Your task to perform on an android device: install app "Etsy: Buy & Sell Unique Items" Image 0: 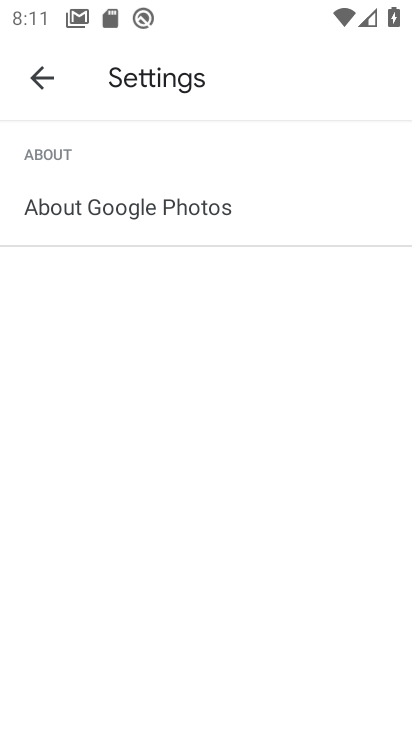
Step 0: press home button
Your task to perform on an android device: install app "Etsy: Buy & Sell Unique Items" Image 1: 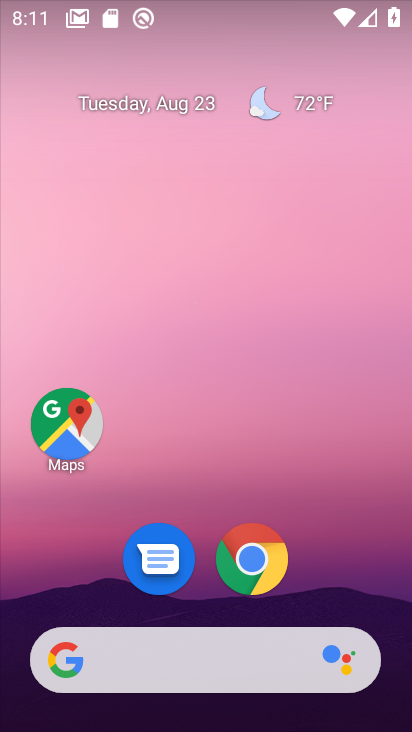
Step 1: drag from (200, 497) to (217, 165)
Your task to perform on an android device: install app "Etsy: Buy & Sell Unique Items" Image 2: 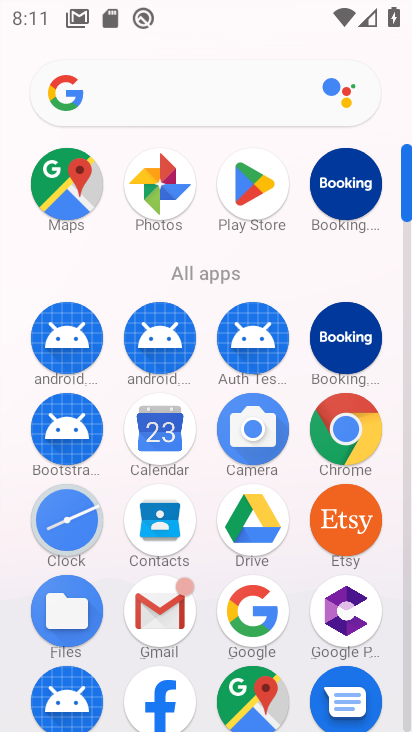
Step 2: click (253, 180)
Your task to perform on an android device: install app "Etsy: Buy & Sell Unique Items" Image 3: 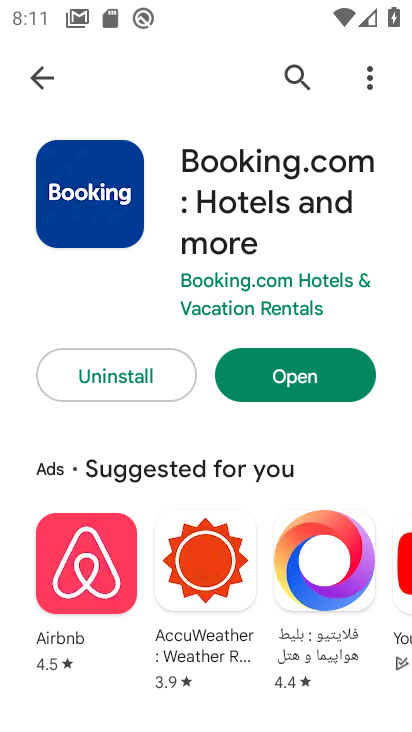
Step 3: click (282, 60)
Your task to perform on an android device: install app "Etsy: Buy & Sell Unique Items" Image 4: 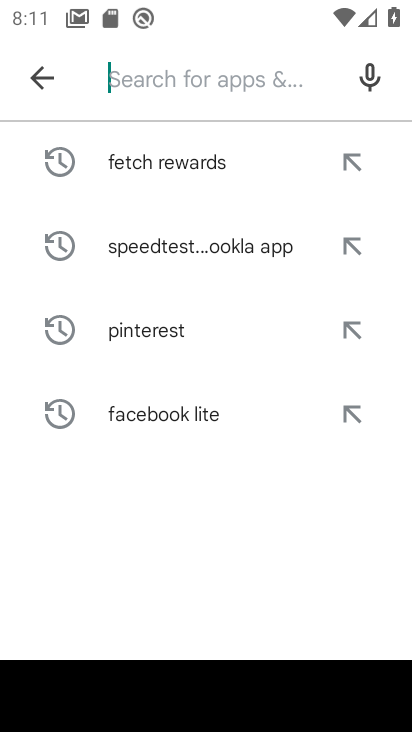
Step 4: type "Etsy: Buy & Sell Unique Item"
Your task to perform on an android device: install app "Etsy: Buy & Sell Unique Items" Image 5: 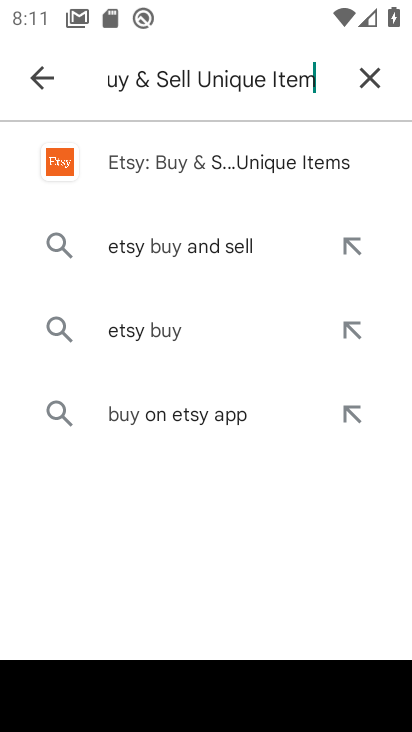
Step 5: type ""
Your task to perform on an android device: install app "Etsy: Buy & Sell Unique Items" Image 6: 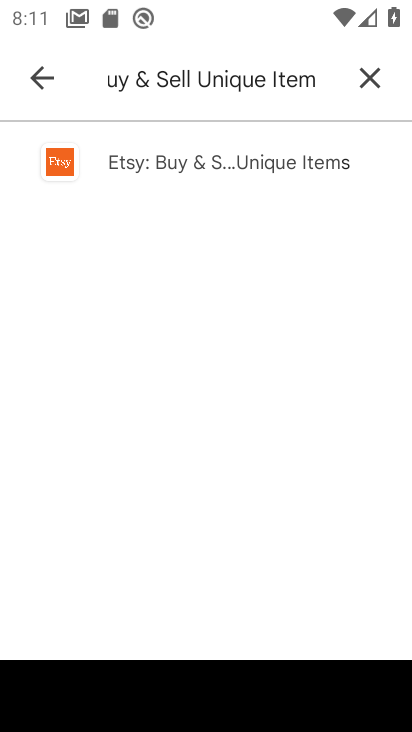
Step 6: click (121, 164)
Your task to perform on an android device: install app "Etsy: Buy & Sell Unique Items" Image 7: 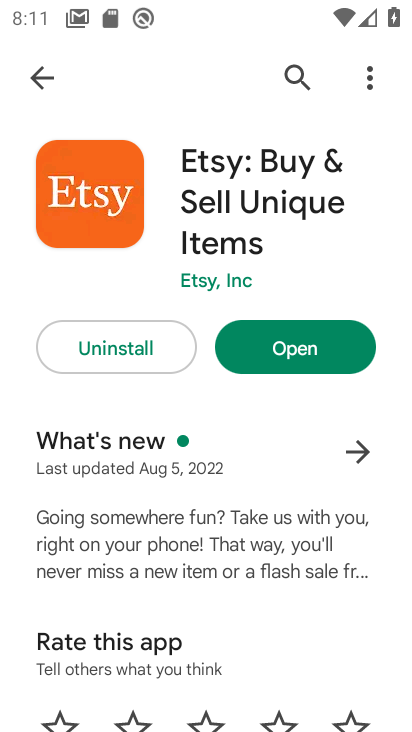
Step 7: task complete